Your task to perform on an android device: Go to accessibility settings Image 0: 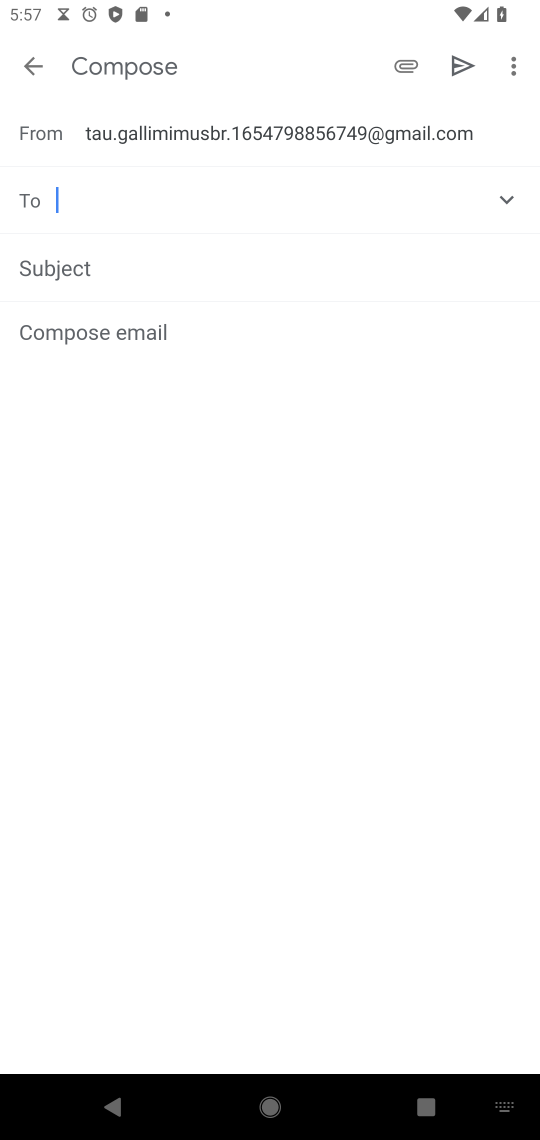
Step 0: press back button
Your task to perform on an android device: Go to accessibility settings Image 1: 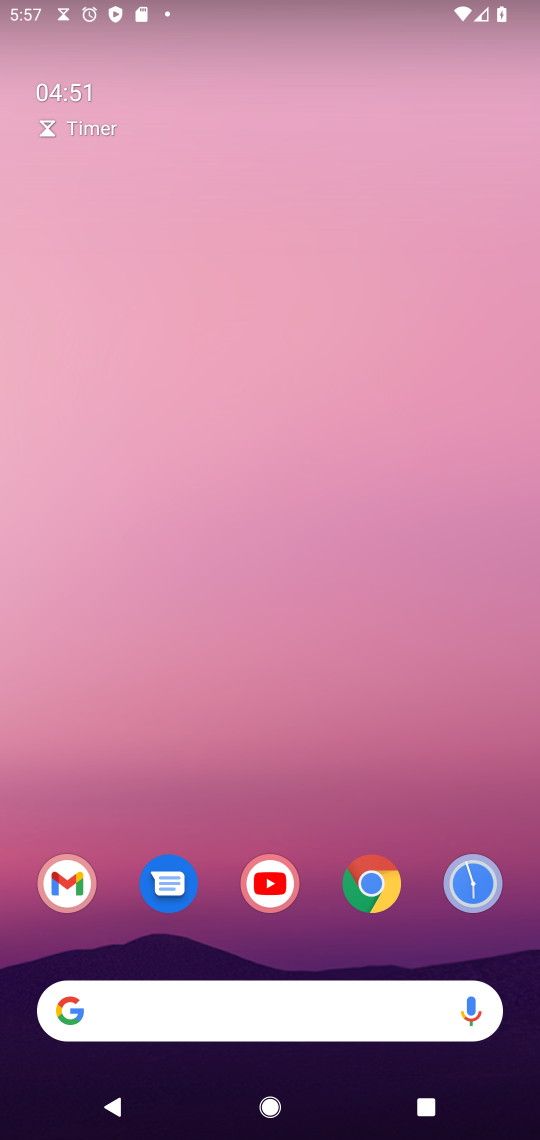
Step 1: drag from (275, 982) to (289, 401)
Your task to perform on an android device: Go to accessibility settings Image 2: 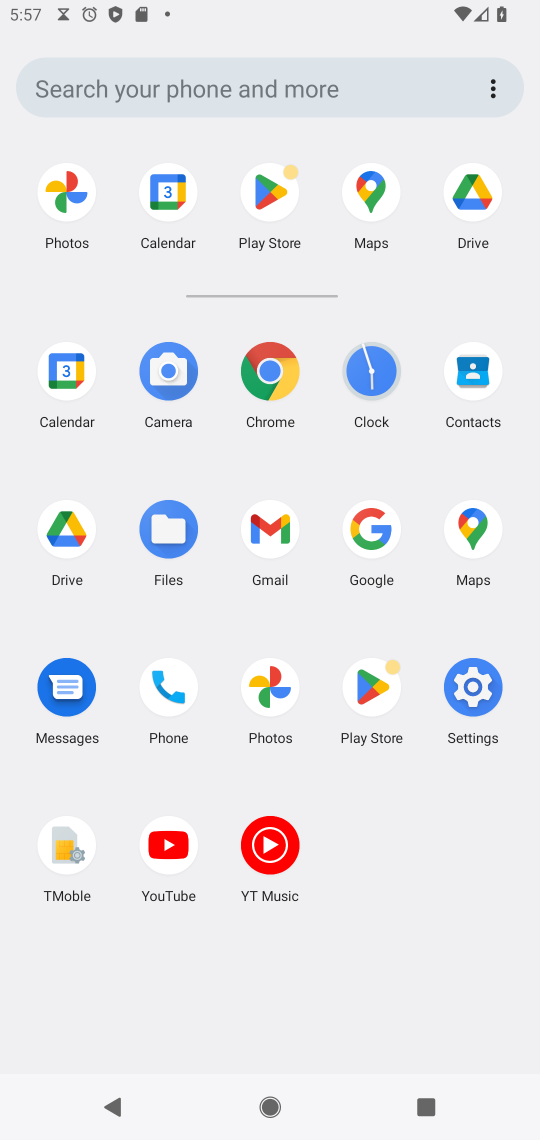
Step 2: click (479, 680)
Your task to perform on an android device: Go to accessibility settings Image 3: 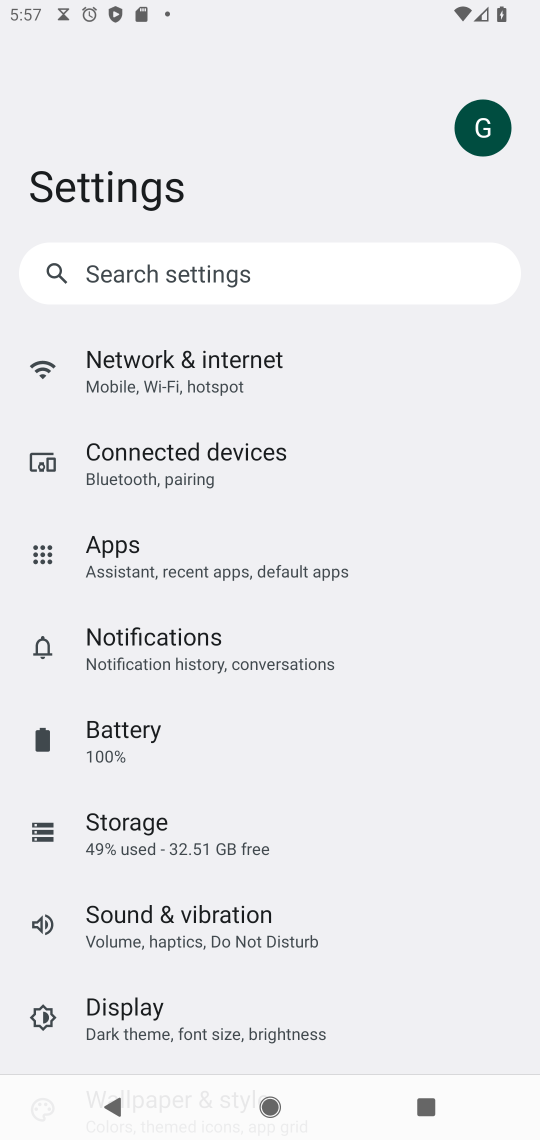
Step 3: drag from (239, 824) to (229, 400)
Your task to perform on an android device: Go to accessibility settings Image 4: 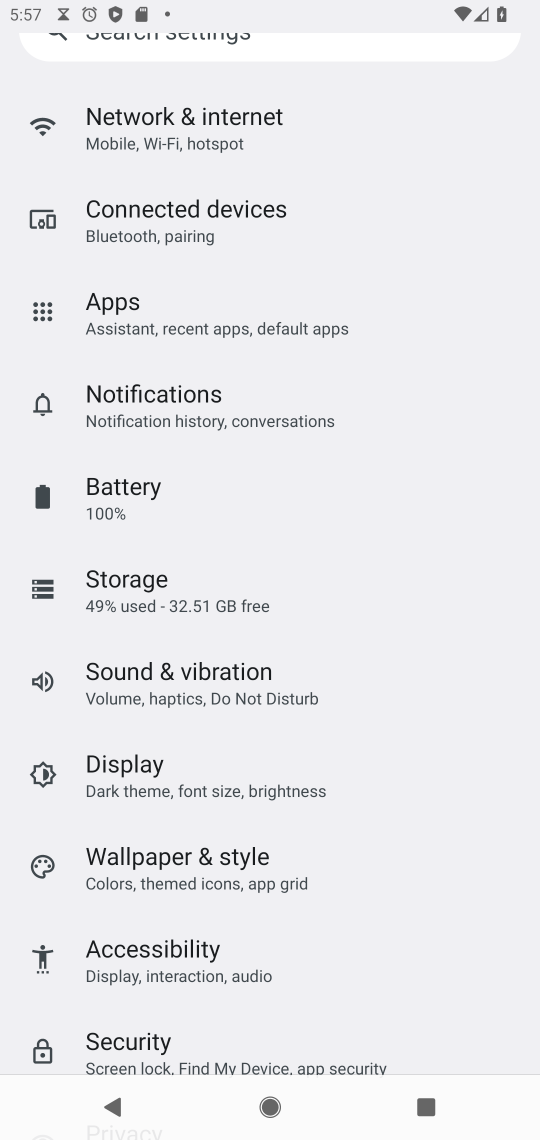
Step 4: click (133, 996)
Your task to perform on an android device: Go to accessibility settings Image 5: 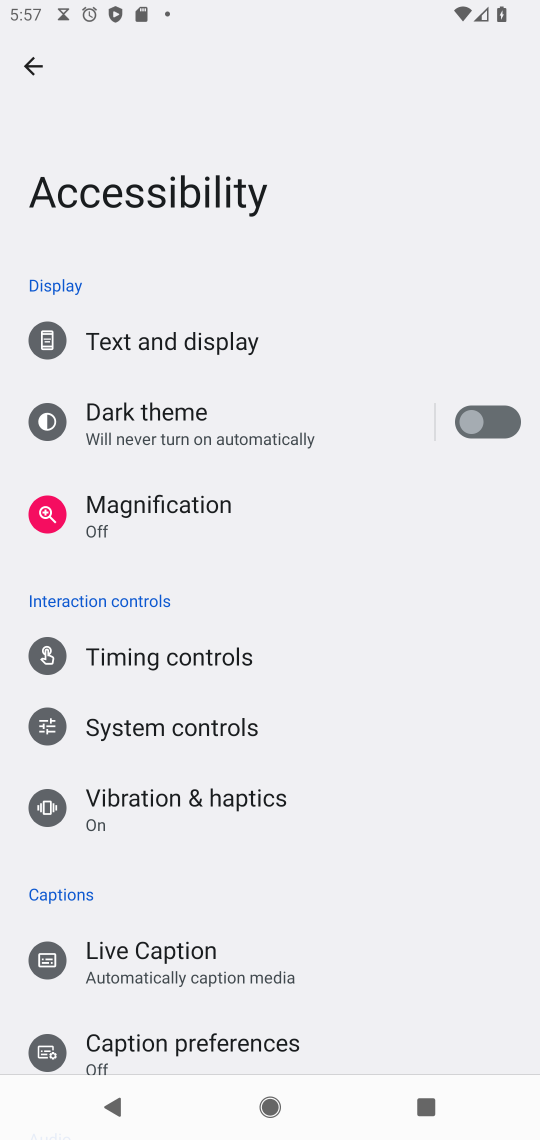
Step 5: task complete